Your task to perform on an android device: turn on data saver in the chrome app Image 0: 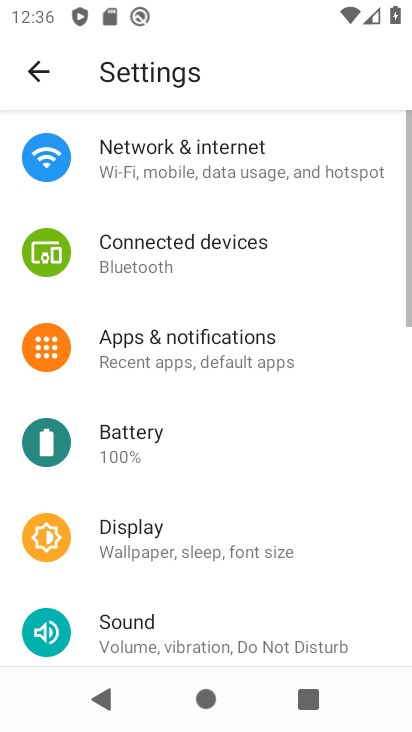
Step 0: press home button
Your task to perform on an android device: turn on data saver in the chrome app Image 1: 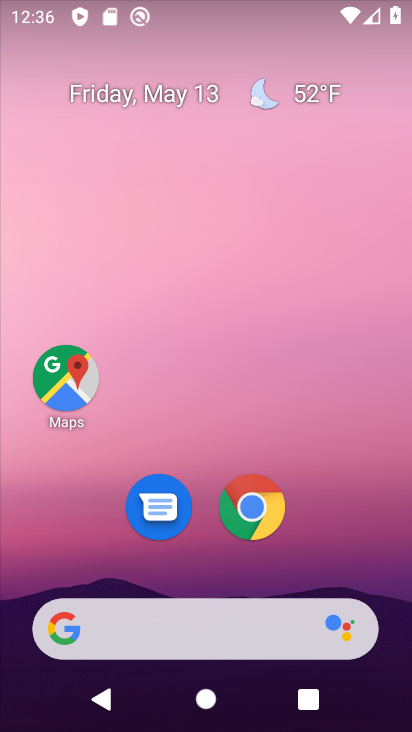
Step 1: click (246, 519)
Your task to perform on an android device: turn on data saver in the chrome app Image 2: 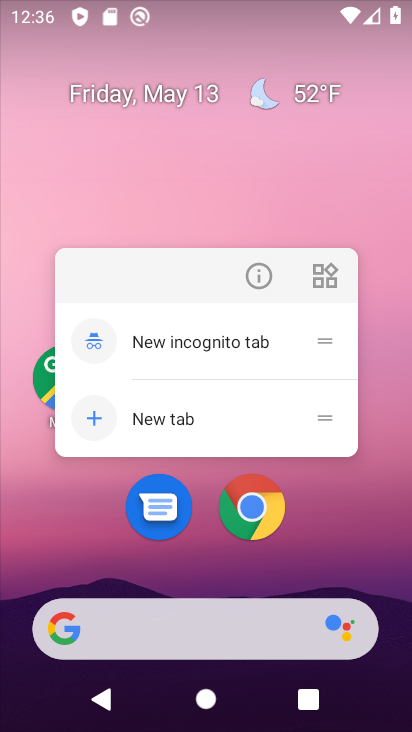
Step 2: click (248, 509)
Your task to perform on an android device: turn on data saver in the chrome app Image 3: 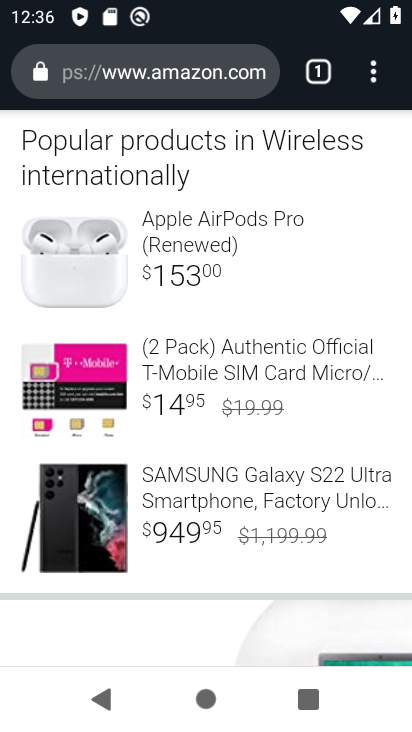
Step 3: click (381, 75)
Your task to perform on an android device: turn on data saver in the chrome app Image 4: 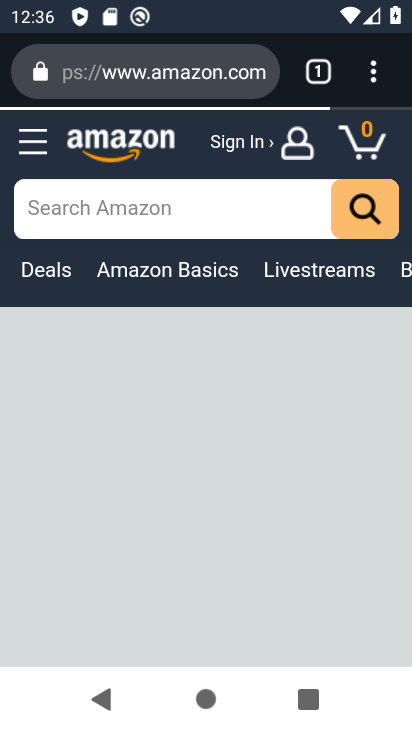
Step 4: click (377, 74)
Your task to perform on an android device: turn on data saver in the chrome app Image 5: 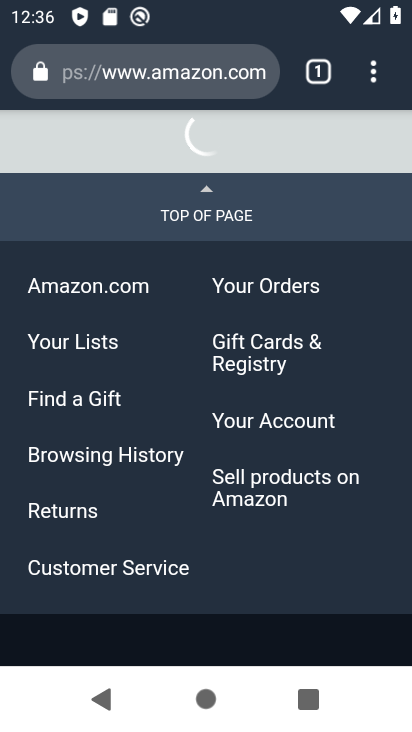
Step 5: click (377, 74)
Your task to perform on an android device: turn on data saver in the chrome app Image 6: 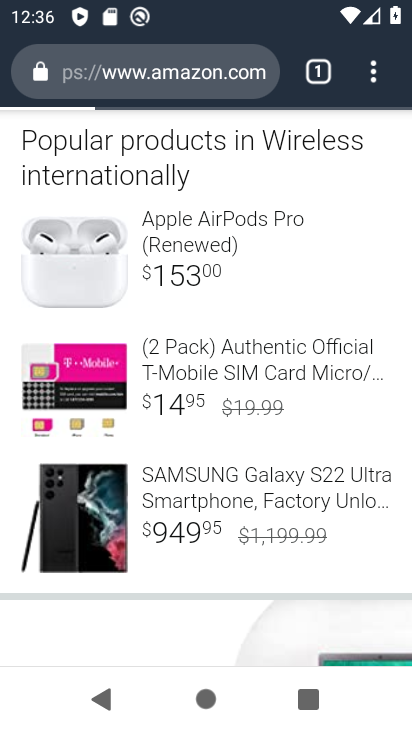
Step 6: click (377, 74)
Your task to perform on an android device: turn on data saver in the chrome app Image 7: 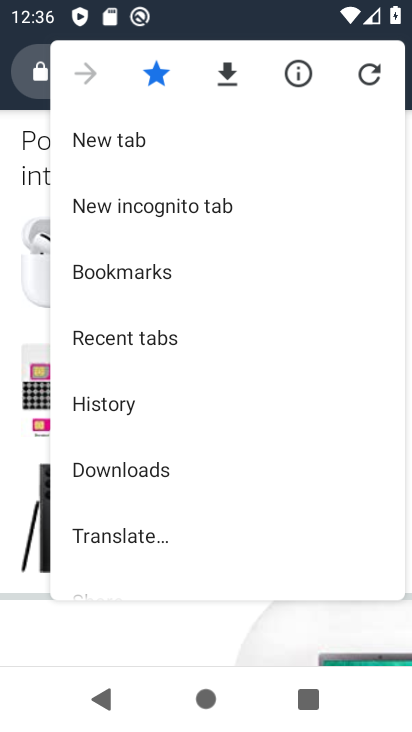
Step 7: drag from (178, 349) to (206, 201)
Your task to perform on an android device: turn on data saver in the chrome app Image 8: 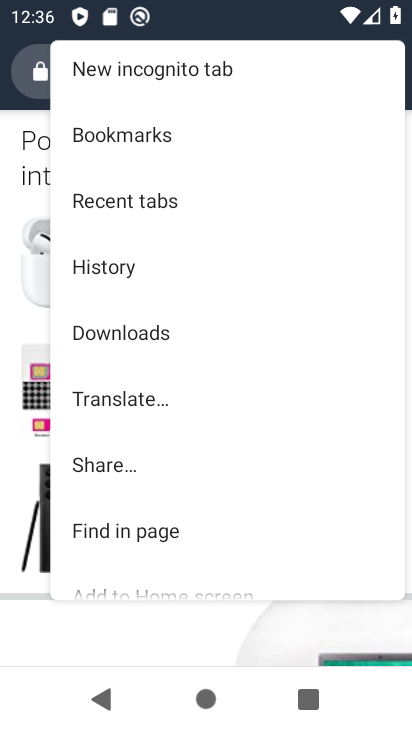
Step 8: drag from (110, 574) to (185, 267)
Your task to perform on an android device: turn on data saver in the chrome app Image 9: 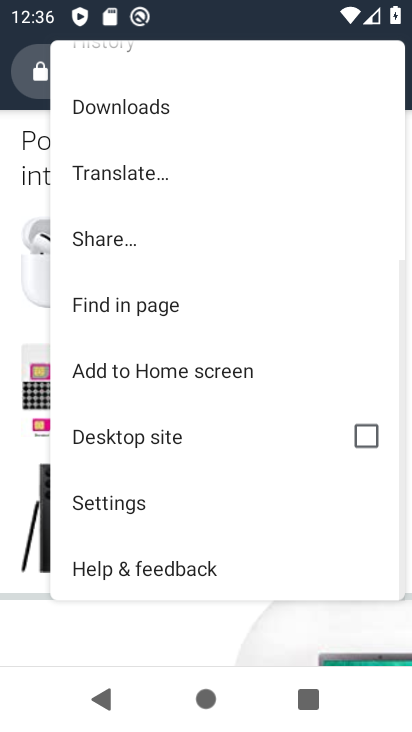
Step 9: click (96, 503)
Your task to perform on an android device: turn on data saver in the chrome app Image 10: 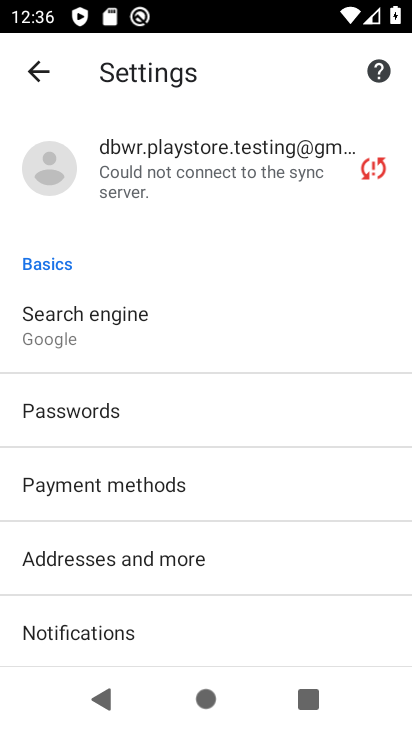
Step 10: drag from (122, 636) to (171, 391)
Your task to perform on an android device: turn on data saver in the chrome app Image 11: 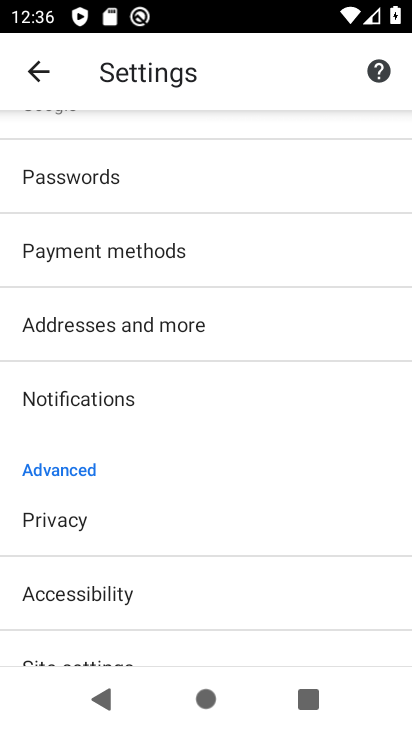
Step 11: drag from (122, 643) to (186, 302)
Your task to perform on an android device: turn on data saver in the chrome app Image 12: 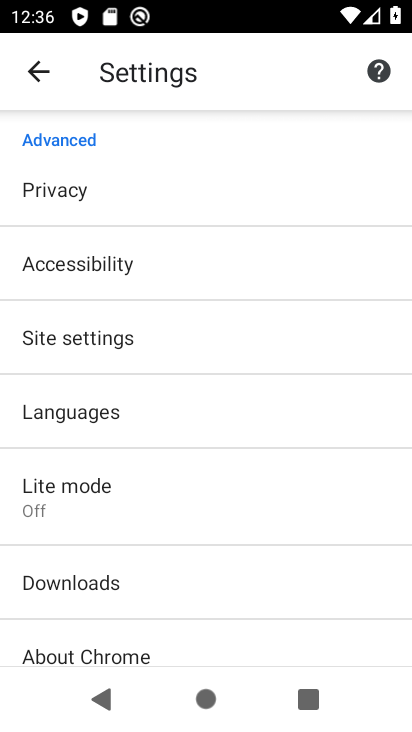
Step 12: click (82, 506)
Your task to perform on an android device: turn on data saver in the chrome app Image 13: 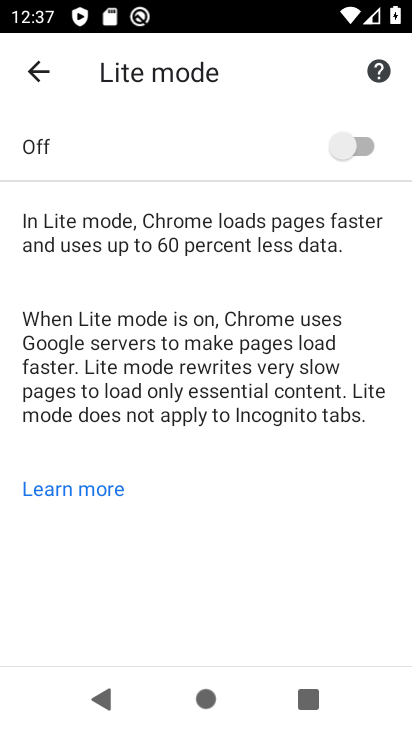
Step 13: click (339, 144)
Your task to perform on an android device: turn on data saver in the chrome app Image 14: 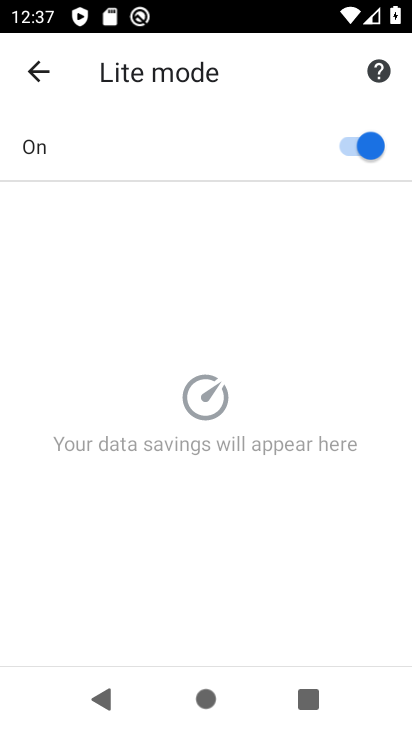
Step 14: task complete